Your task to perform on an android device: Go to Google Image 0: 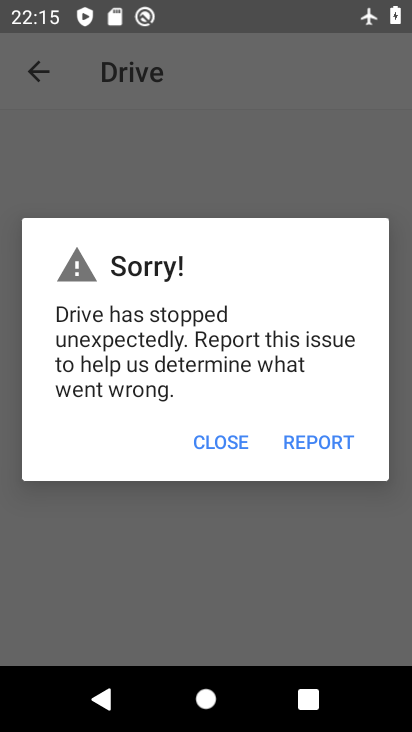
Step 0: press home button
Your task to perform on an android device: Go to Google Image 1: 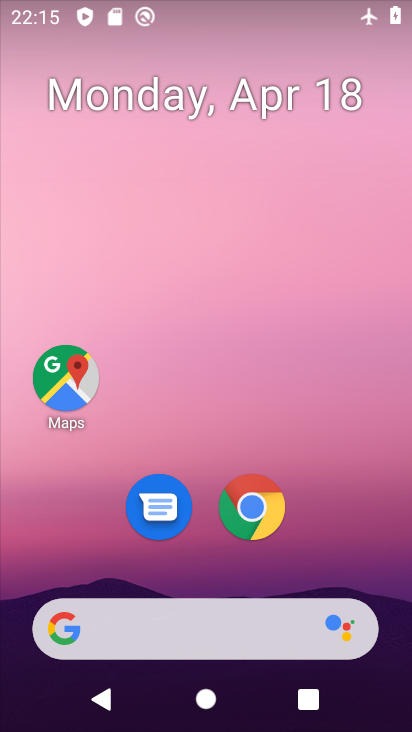
Step 1: drag from (332, 511) to (314, 56)
Your task to perform on an android device: Go to Google Image 2: 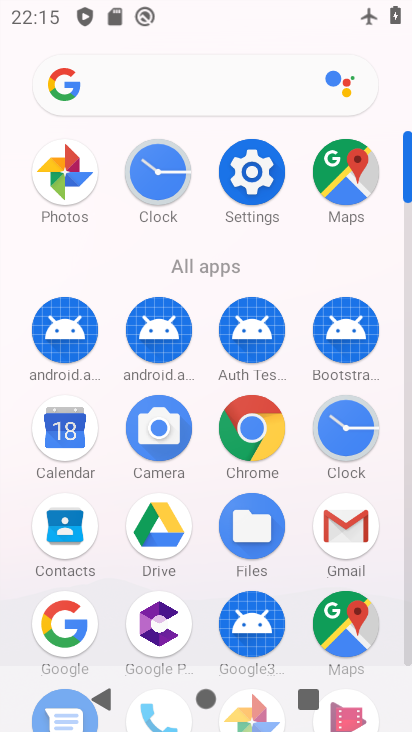
Step 2: click (48, 618)
Your task to perform on an android device: Go to Google Image 3: 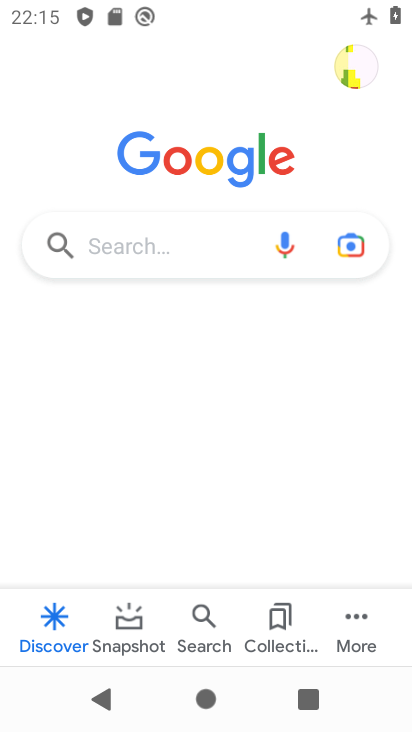
Step 3: task complete